Your task to perform on an android device: turn off improve location accuracy Image 0: 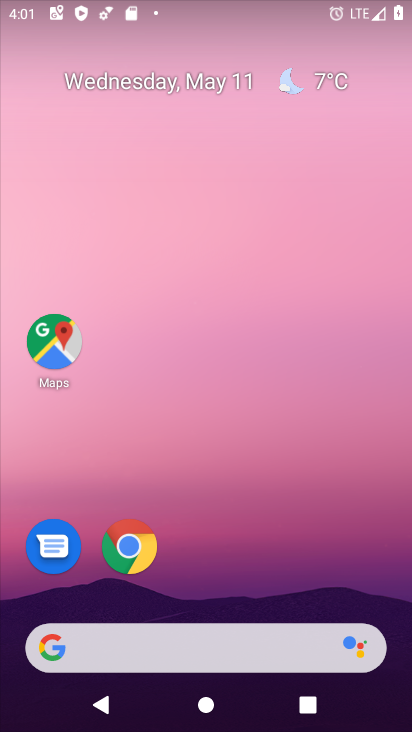
Step 0: drag from (234, 627) to (248, 24)
Your task to perform on an android device: turn off improve location accuracy Image 1: 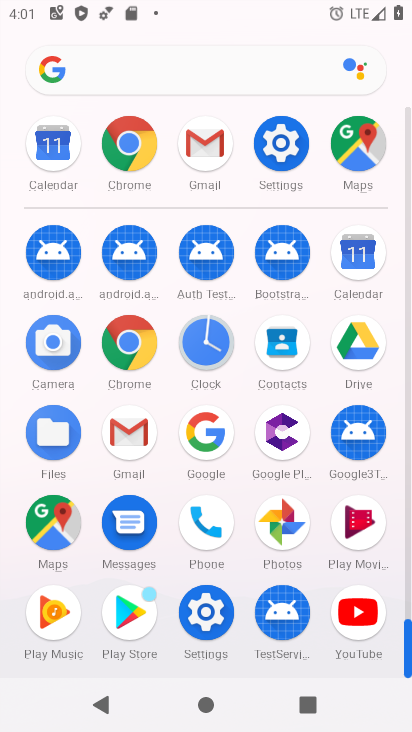
Step 1: click (272, 148)
Your task to perform on an android device: turn off improve location accuracy Image 2: 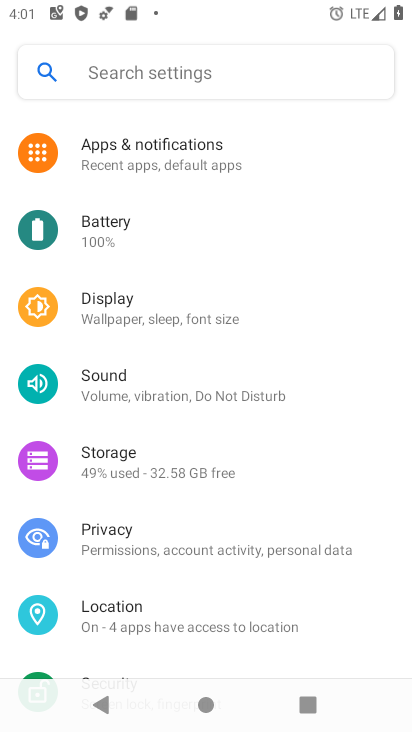
Step 2: click (126, 599)
Your task to perform on an android device: turn off improve location accuracy Image 3: 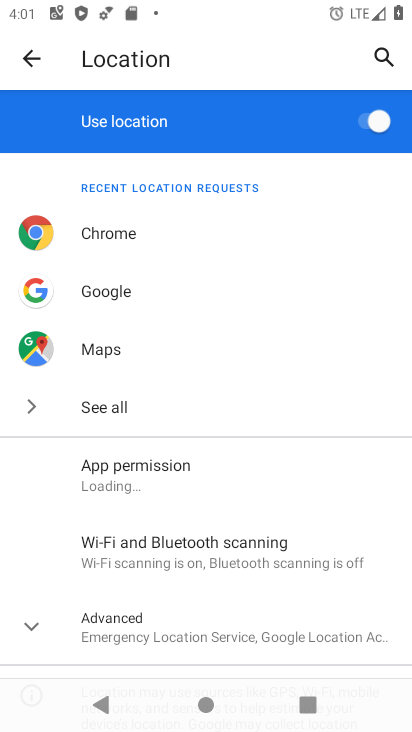
Step 3: drag from (234, 617) to (287, 113)
Your task to perform on an android device: turn off improve location accuracy Image 4: 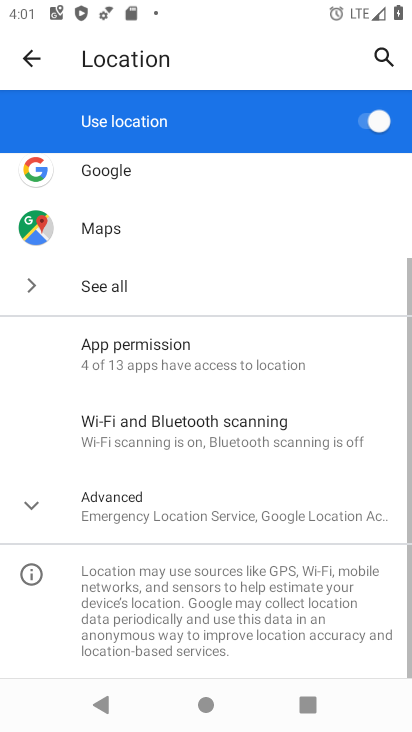
Step 4: click (229, 518)
Your task to perform on an android device: turn off improve location accuracy Image 5: 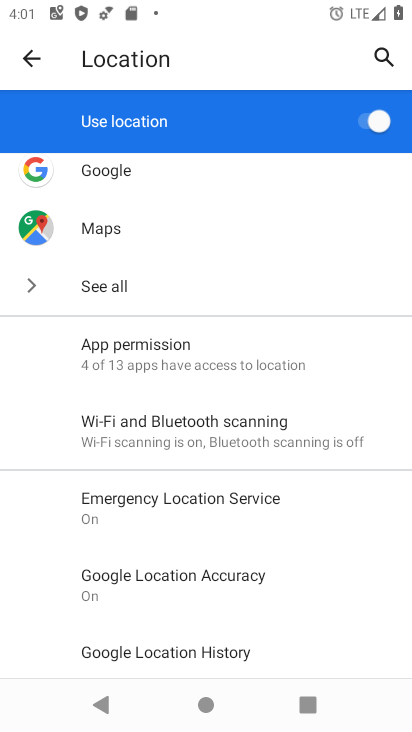
Step 5: click (219, 591)
Your task to perform on an android device: turn off improve location accuracy Image 6: 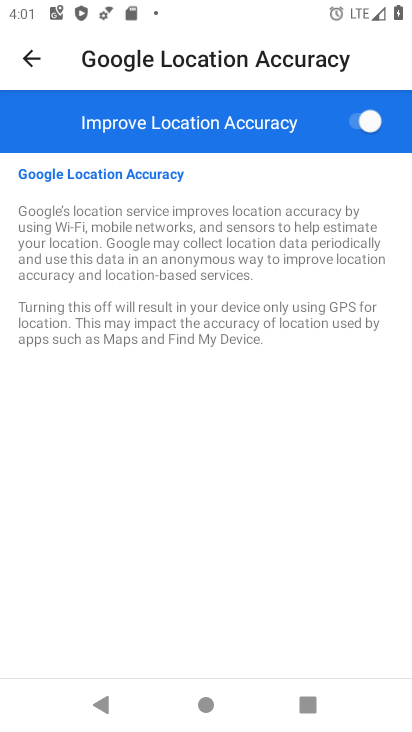
Step 6: click (354, 122)
Your task to perform on an android device: turn off improve location accuracy Image 7: 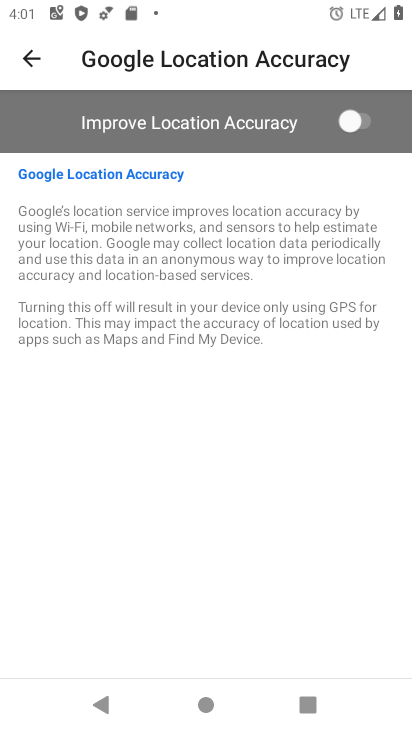
Step 7: task complete